Your task to perform on an android device: turn on airplane mode Image 0: 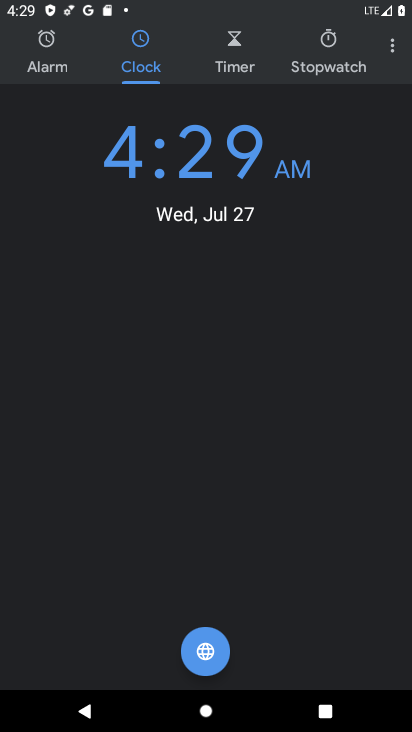
Step 0: press home button
Your task to perform on an android device: turn on airplane mode Image 1: 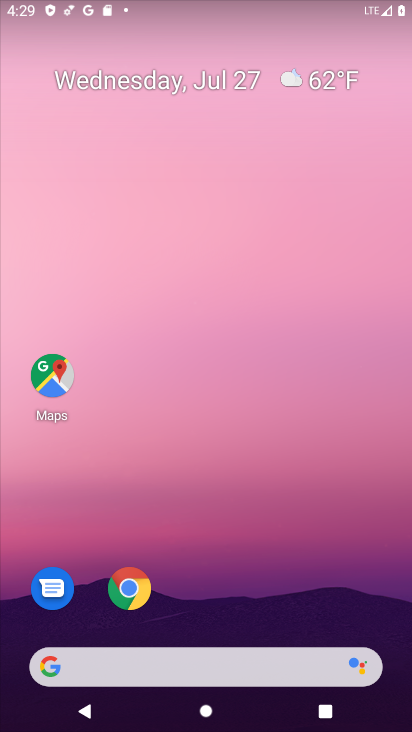
Step 1: drag from (226, 425) to (256, 71)
Your task to perform on an android device: turn on airplane mode Image 2: 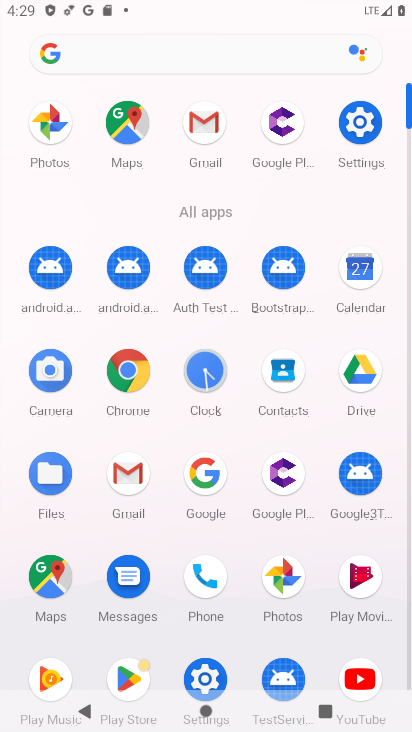
Step 2: click (353, 127)
Your task to perform on an android device: turn on airplane mode Image 3: 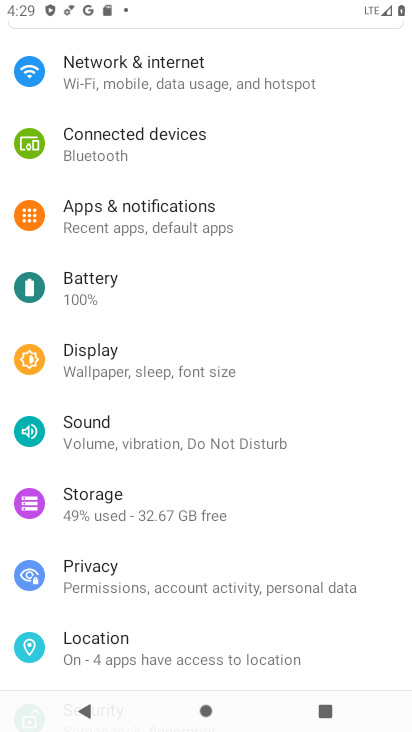
Step 3: click (249, 81)
Your task to perform on an android device: turn on airplane mode Image 4: 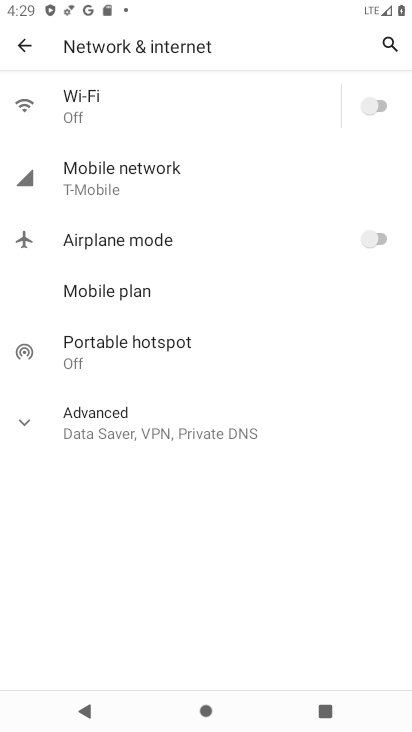
Step 4: click (376, 239)
Your task to perform on an android device: turn on airplane mode Image 5: 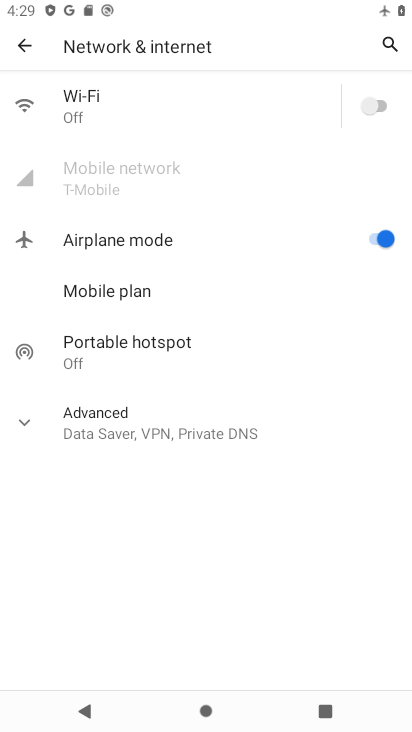
Step 5: task complete